Your task to perform on an android device: open a bookmark in the chrome app Image 0: 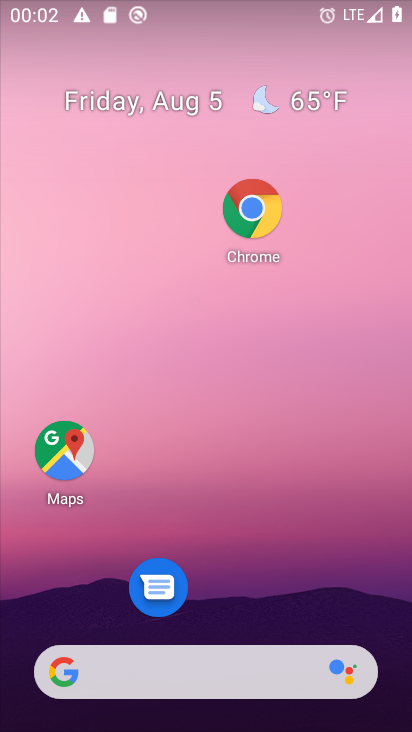
Step 0: drag from (266, 609) to (257, 283)
Your task to perform on an android device: open a bookmark in the chrome app Image 1: 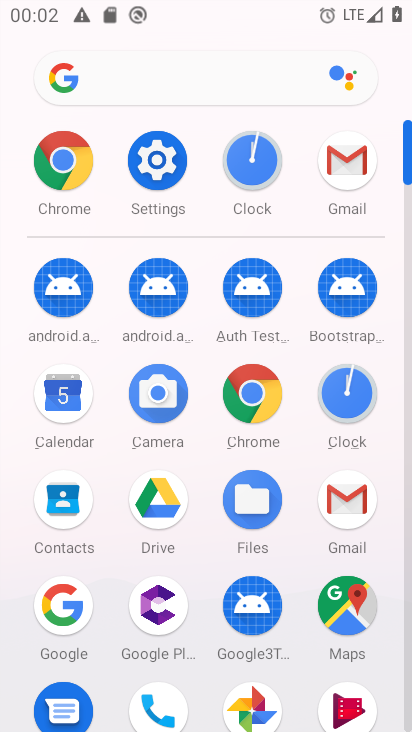
Step 1: click (243, 412)
Your task to perform on an android device: open a bookmark in the chrome app Image 2: 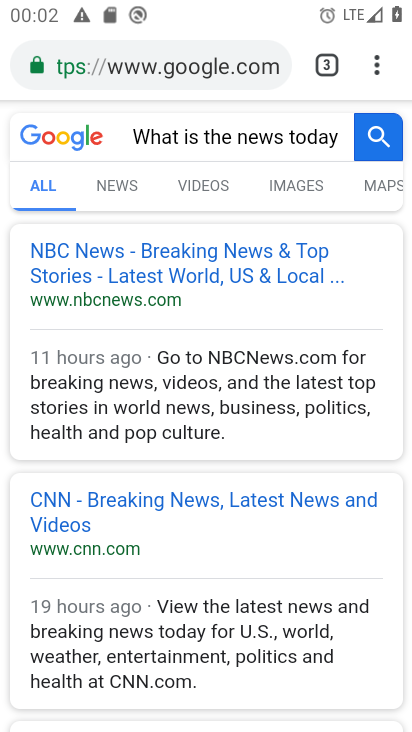
Step 2: click (382, 59)
Your task to perform on an android device: open a bookmark in the chrome app Image 3: 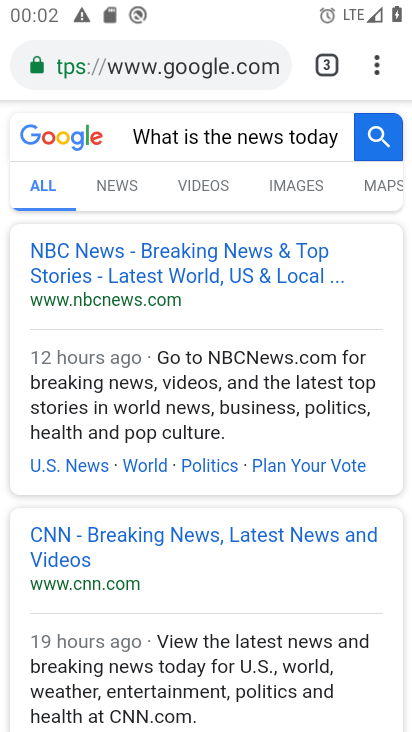
Step 3: click (385, 77)
Your task to perform on an android device: open a bookmark in the chrome app Image 4: 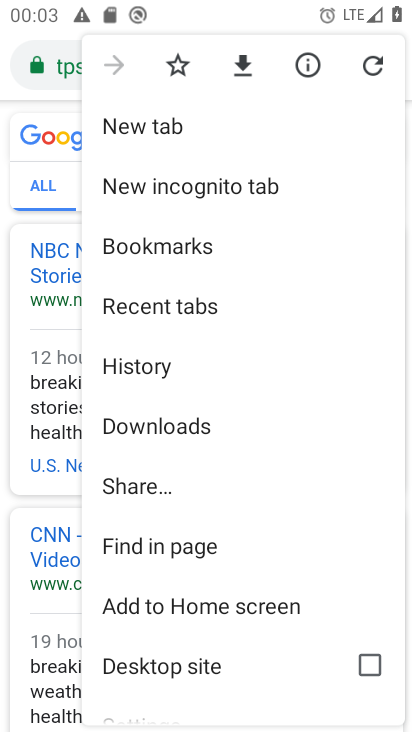
Step 4: click (114, 265)
Your task to perform on an android device: open a bookmark in the chrome app Image 5: 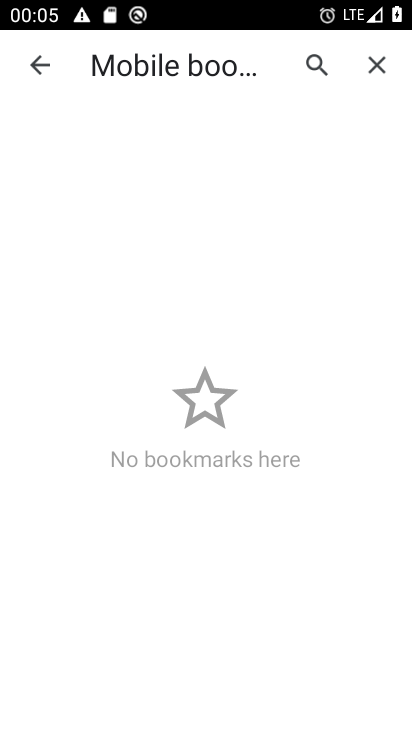
Step 5: task complete